Your task to perform on an android device: Check the news Image 0: 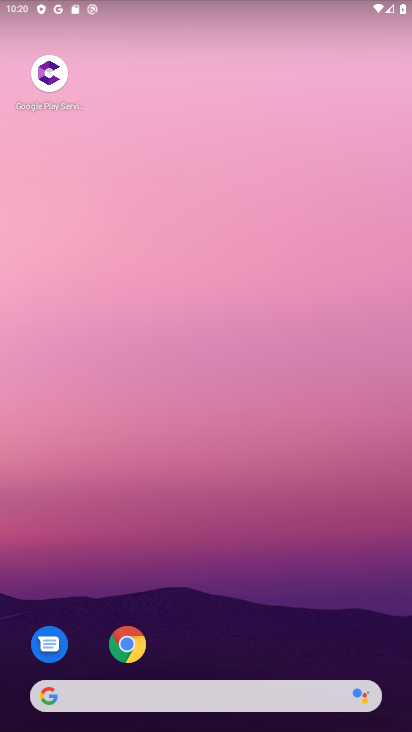
Step 0: press home button
Your task to perform on an android device: Check the news Image 1: 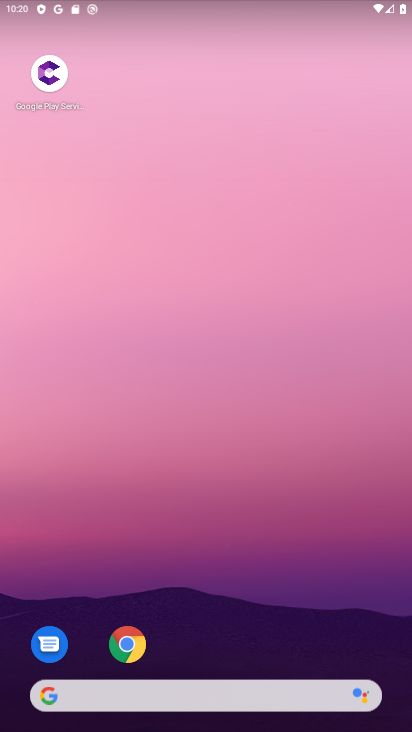
Step 1: drag from (3, 332) to (407, 372)
Your task to perform on an android device: Check the news Image 2: 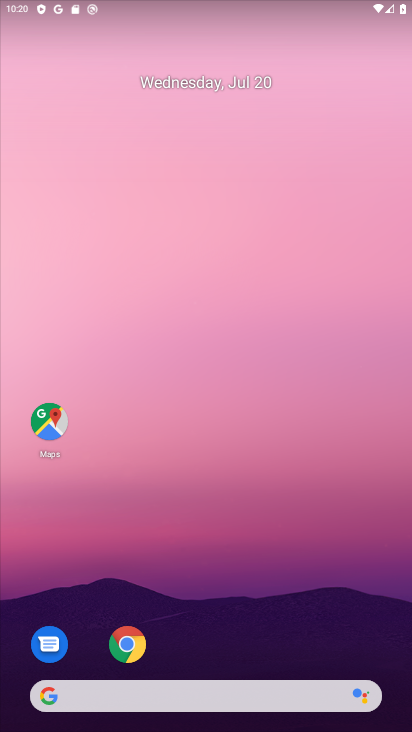
Step 2: drag from (10, 317) to (407, 335)
Your task to perform on an android device: Check the news Image 3: 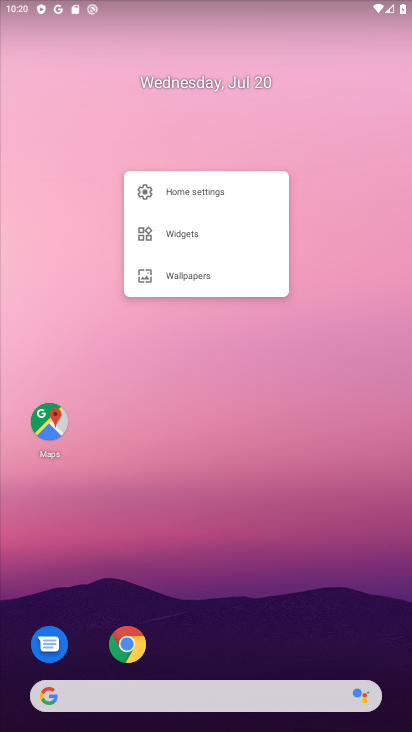
Step 3: click (257, 430)
Your task to perform on an android device: Check the news Image 4: 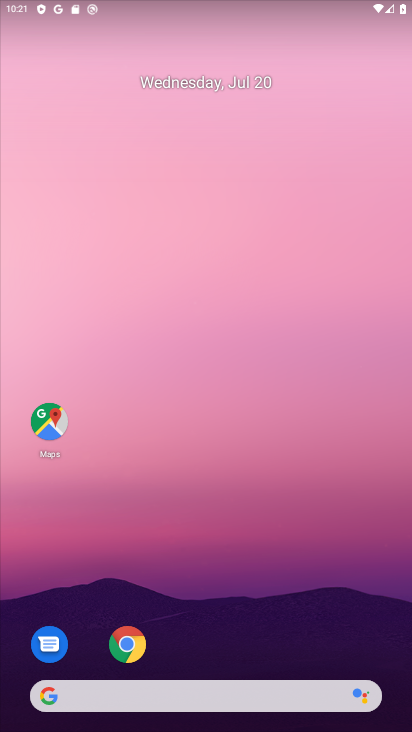
Step 4: task complete